Your task to perform on an android device: Open calendar and show me the third week of next month Image 0: 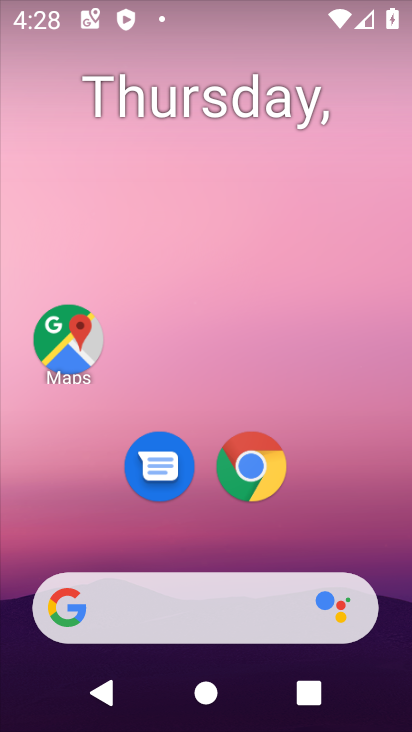
Step 0: drag from (330, 545) to (320, 128)
Your task to perform on an android device: Open calendar and show me the third week of next month Image 1: 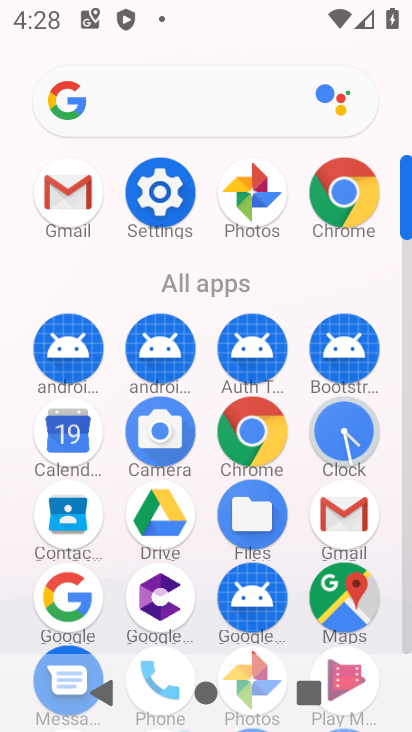
Step 1: click (38, 437)
Your task to perform on an android device: Open calendar and show me the third week of next month Image 2: 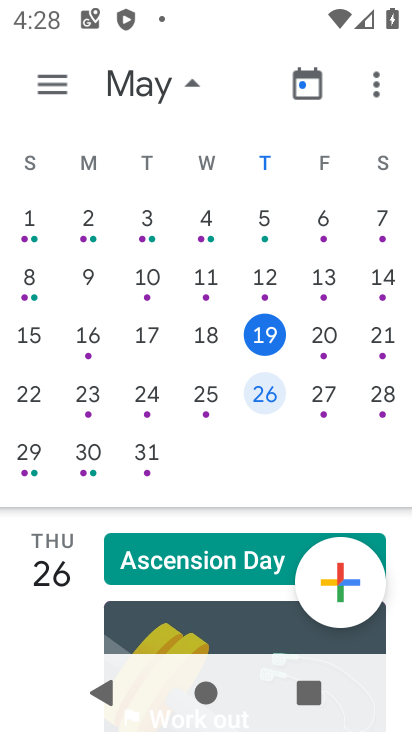
Step 2: drag from (327, 382) to (1, 447)
Your task to perform on an android device: Open calendar and show me the third week of next month Image 3: 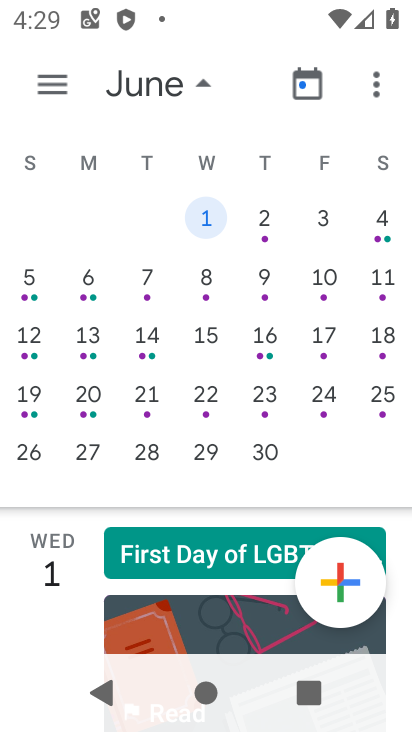
Step 3: click (139, 403)
Your task to perform on an android device: Open calendar and show me the third week of next month Image 4: 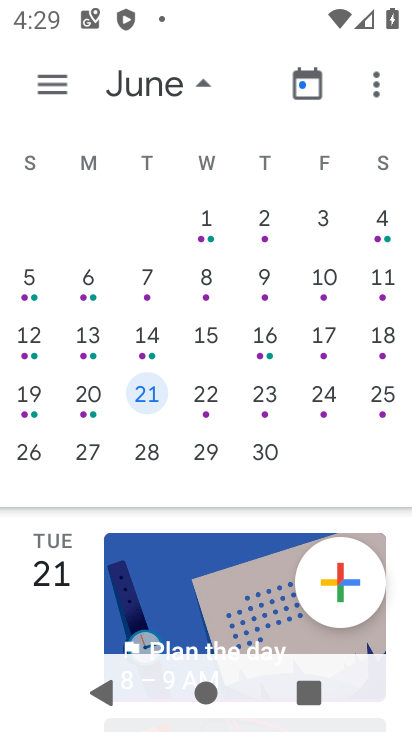
Step 4: task complete